Your task to perform on an android device: Show me popular videos on Youtube Image 0: 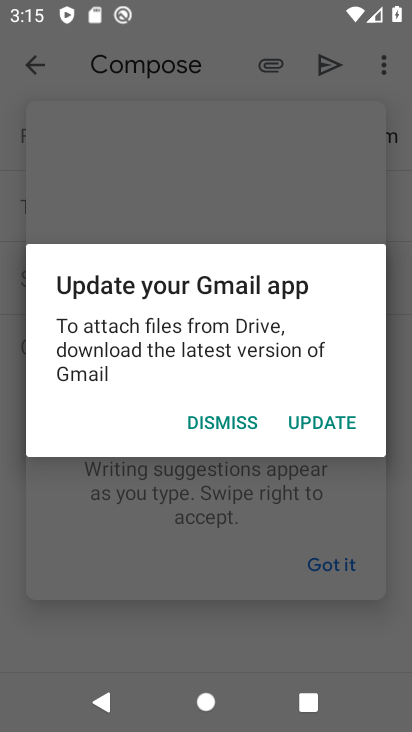
Step 0: press home button
Your task to perform on an android device: Show me popular videos on Youtube Image 1: 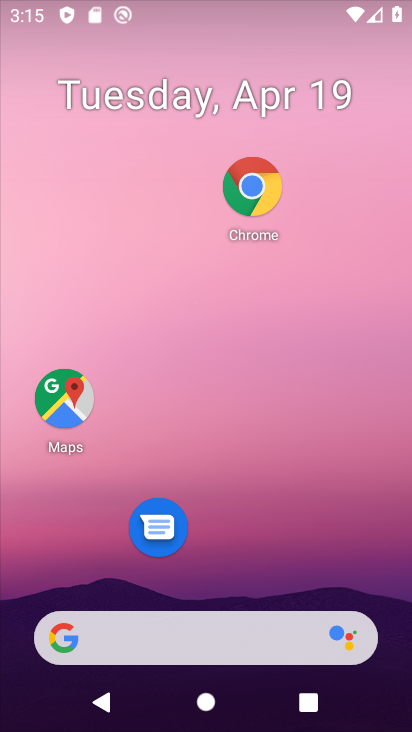
Step 1: drag from (284, 415) to (318, 159)
Your task to perform on an android device: Show me popular videos on Youtube Image 2: 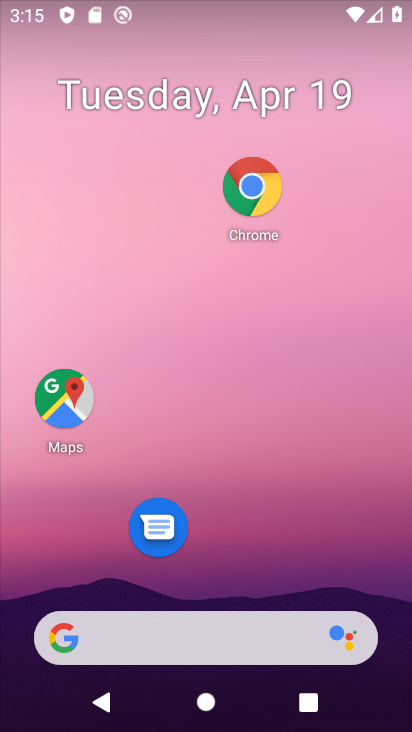
Step 2: drag from (286, 523) to (318, 262)
Your task to perform on an android device: Show me popular videos on Youtube Image 3: 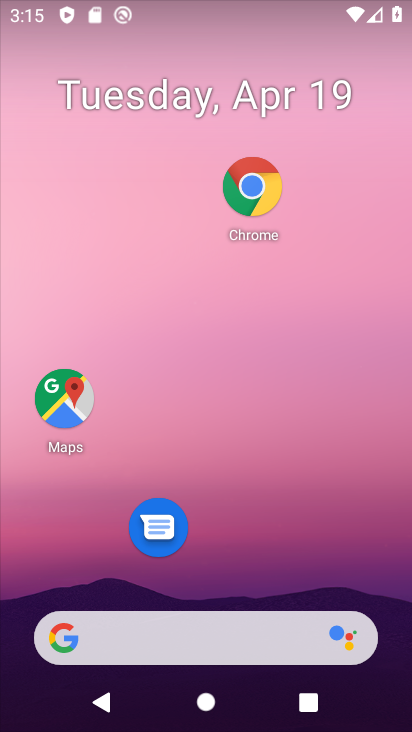
Step 3: click (294, 298)
Your task to perform on an android device: Show me popular videos on Youtube Image 4: 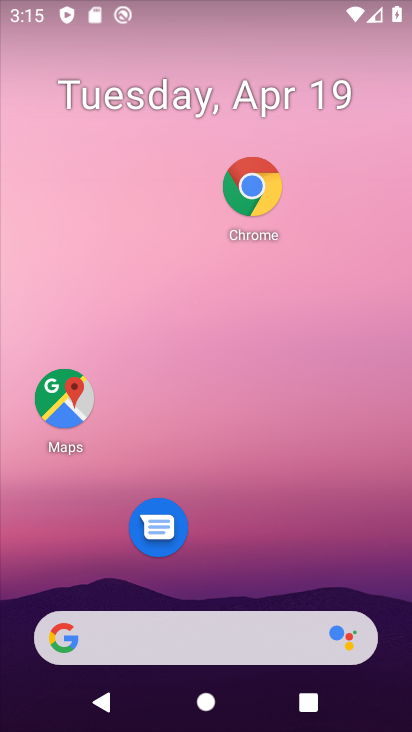
Step 4: drag from (225, 457) to (251, 189)
Your task to perform on an android device: Show me popular videos on Youtube Image 5: 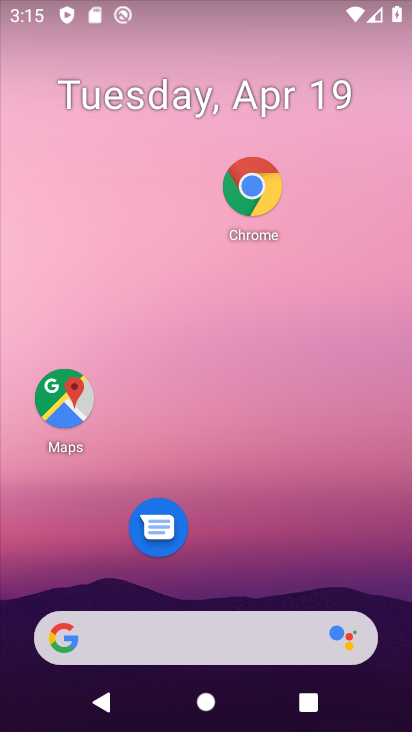
Step 5: drag from (215, 579) to (296, 266)
Your task to perform on an android device: Show me popular videos on Youtube Image 6: 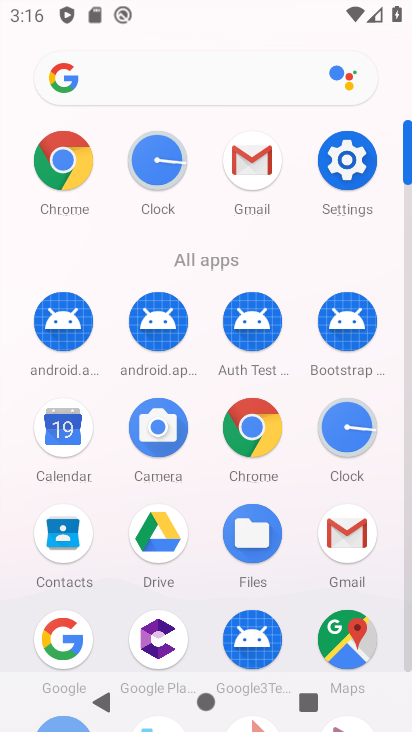
Step 6: drag from (245, 523) to (381, 175)
Your task to perform on an android device: Show me popular videos on Youtube Image 7: 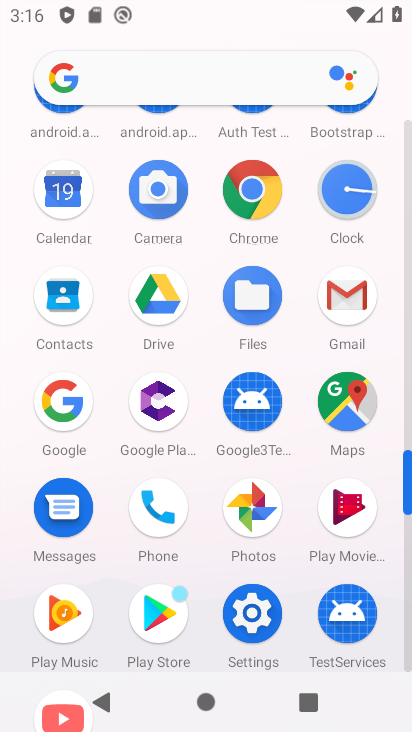
Step 7: drag from (117, 670) to (220, 275)
Your task to perform on an android device: Show me popular videos on Youtube Image 8: 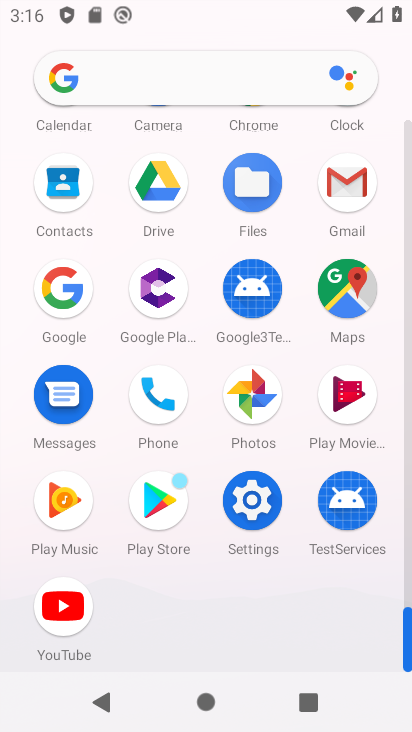
Step 8: click (63, 597)
Your task to perform on an android device: Show me popular videos on Youtube Image 9: 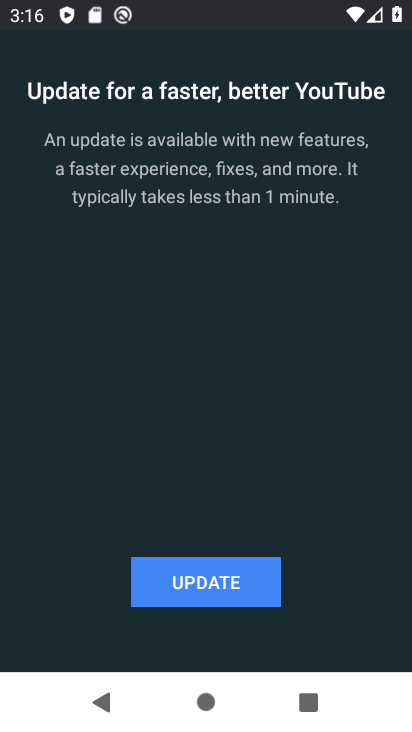
Step 9: task complete